Your task to perform on an android device: toggle show notifications on the lock screen Image 0: 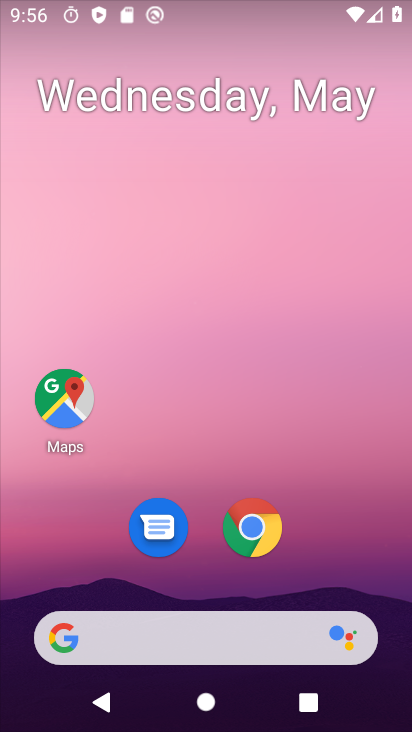
Step 0: drag from (376, 556) to (411, 12)
Your task to perform on an android device: toggle show notifications on the lock screen Image 1: 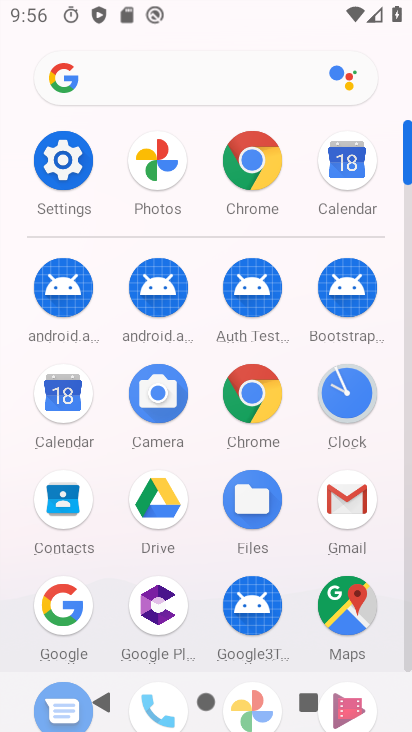
Step 1: click (95, 168)
Your task to perform on an android device: toggle show notifications on the lock screen Image 2: 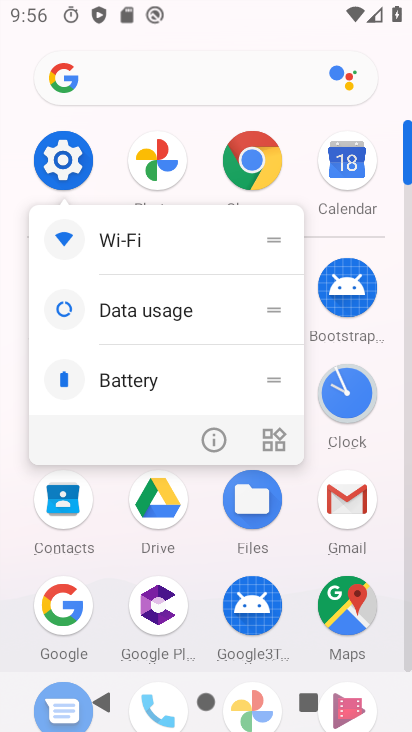
Step 2: click (69, 167)
Your task to perform on an android device: toggle show notifications on the lock screen Image 3: 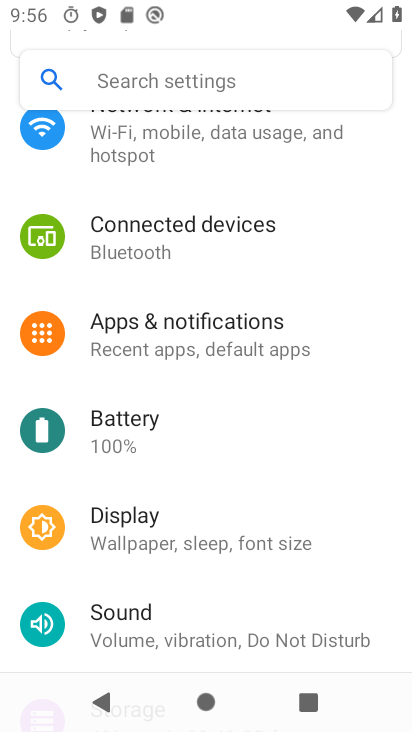
Step 3: click (313, 367)
Your task to perform on an android device: toggle show notifications on the lock screen Image 4: 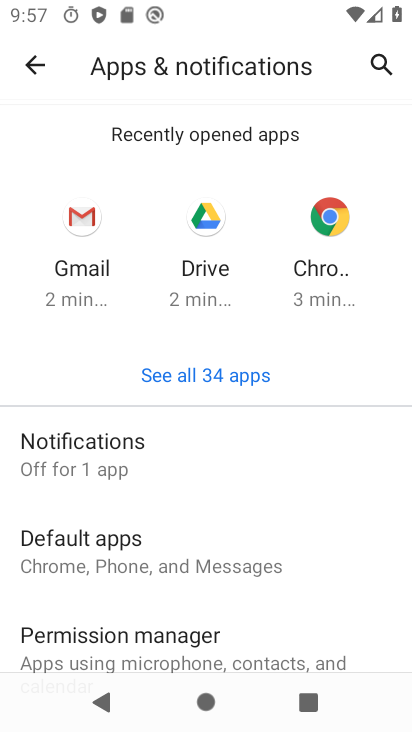
Step 4: click (265, 412)
Your task to perform on an android device: toggle show notifications on the lock screen Image 5: 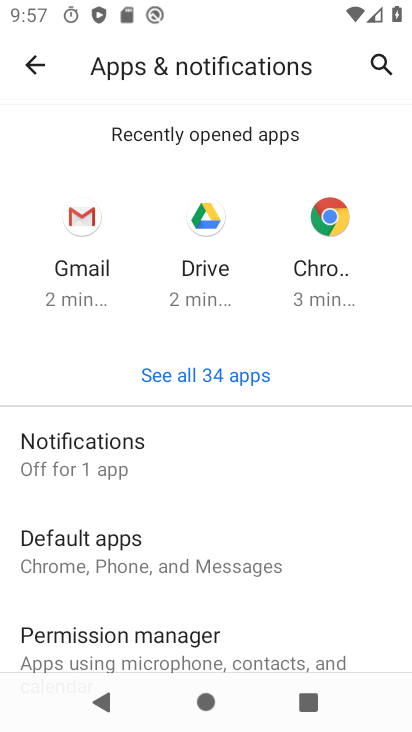
Step 5: drag from (265, 412) to (268, 11)
Your task to perform on an android device: toggle show notifications on the lock screen Image 6: 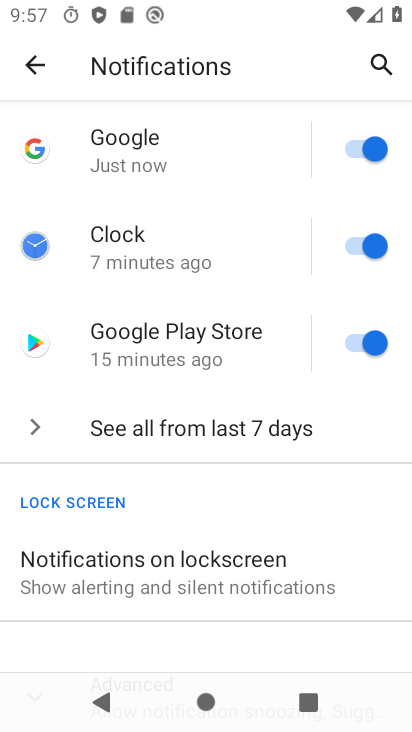
Step 6: click (278, 566)
Your task to perform on an android device: toggle show notifications on the lock screen Image 7: 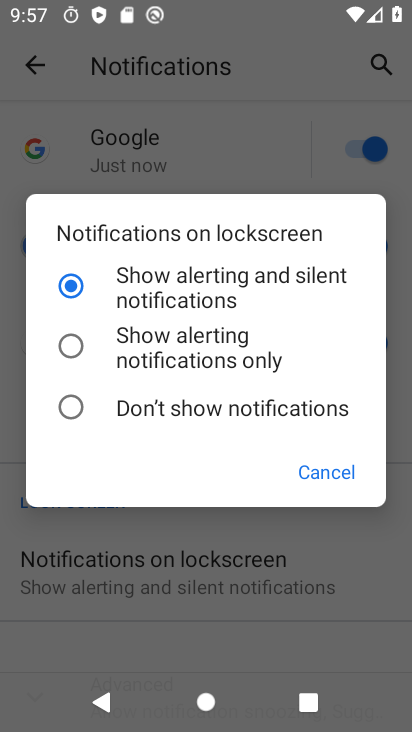
Step 7: click (252, 362)
Your task to perform on an android device: toggle show notifications on the lock screen Image 8: 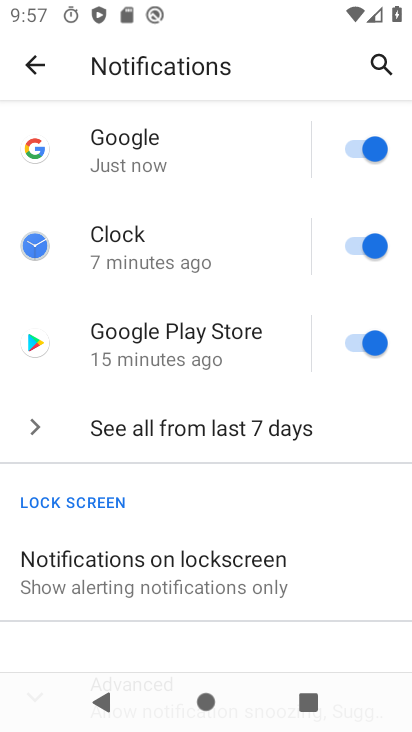
Step 8: task complete